Your task to perform on an android device: toggle improve location accuracy Image 0: 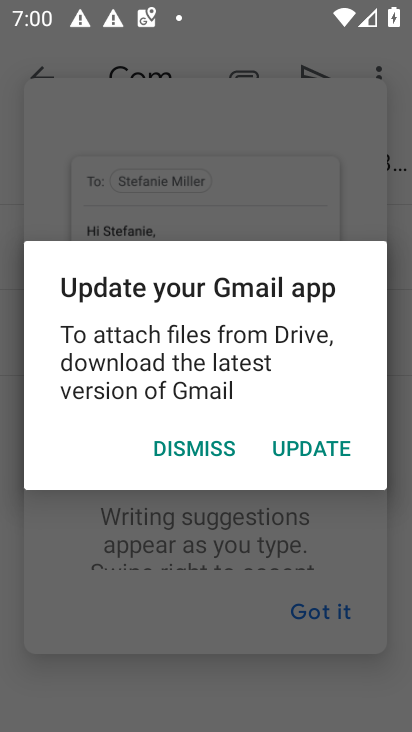
Step 0: press home button
Your task to perform on an android device: toggle improve location accuracy Image 1: 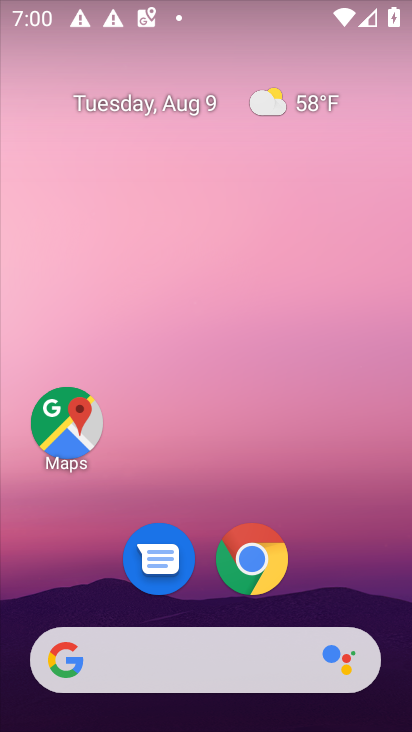
Step 1: drag from (191, 544) to (145, 0)
Your task to perform on an android device: toggle improve location accuracy Image 2: 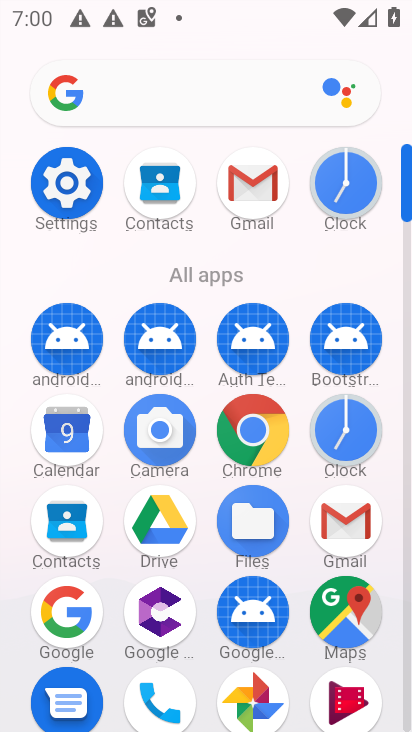
Step 2: click (66, 184)
Your task to perform on an android device: toggle improve location accuracy Image 3: 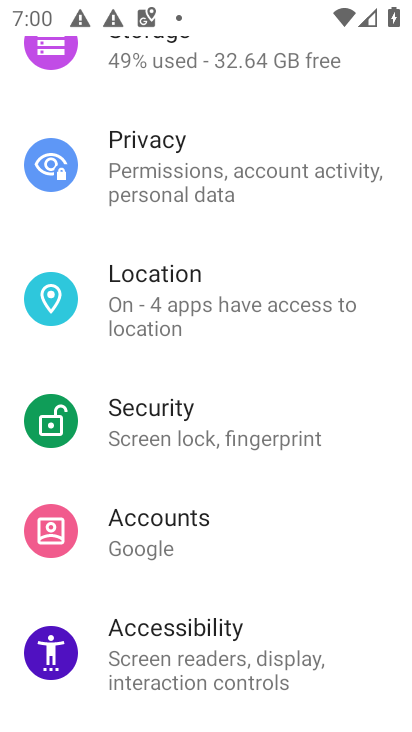
Step 3: click (163, 296)
Your task to perform on an android device: toggle improve location accuracy Image 4: 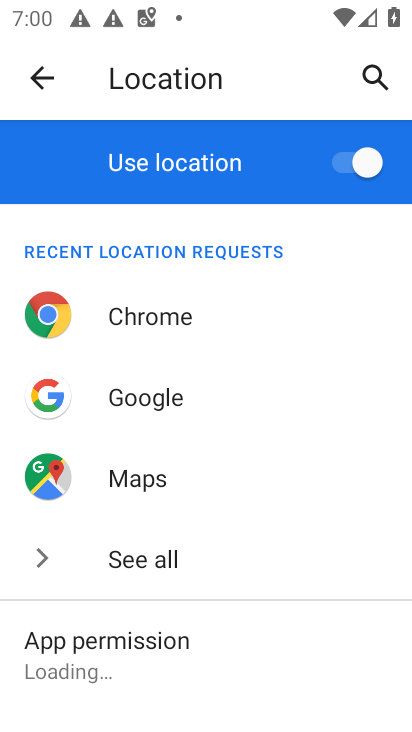
Step 4: drag from (248, 607) to (183, 302)
Your task to perform on an android device: toggle improve location accuracy Image 5: 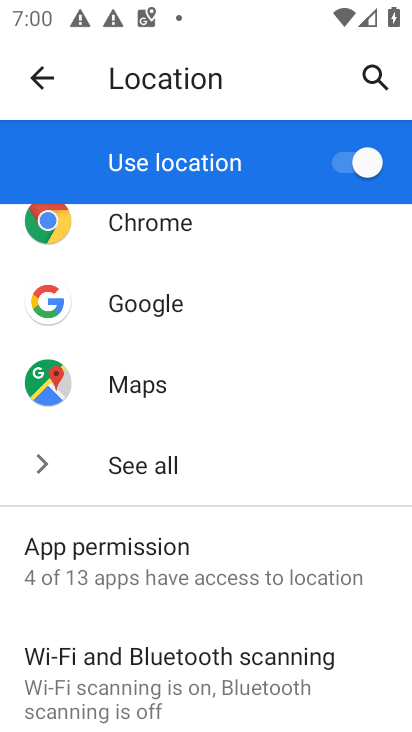
Step 5: drag from (231, 540) to (210, 288)
Your task to perform on an android device: toggle improve location accuracy Image 6: 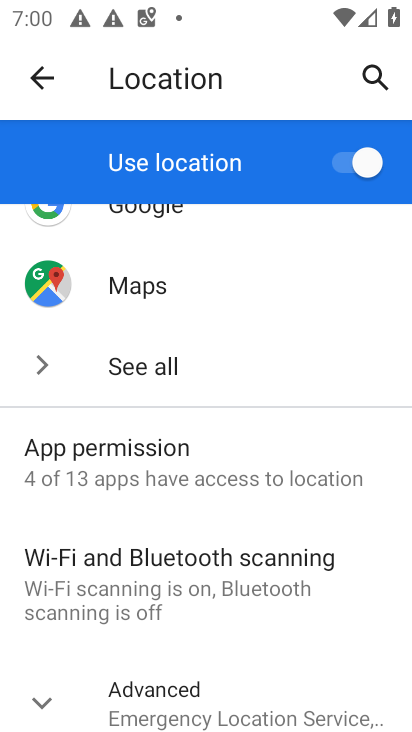
Step 6: drag from (220, 652) to (205, 263)
Your task to perform on an android device: toggle improve location accuracy Image 7: 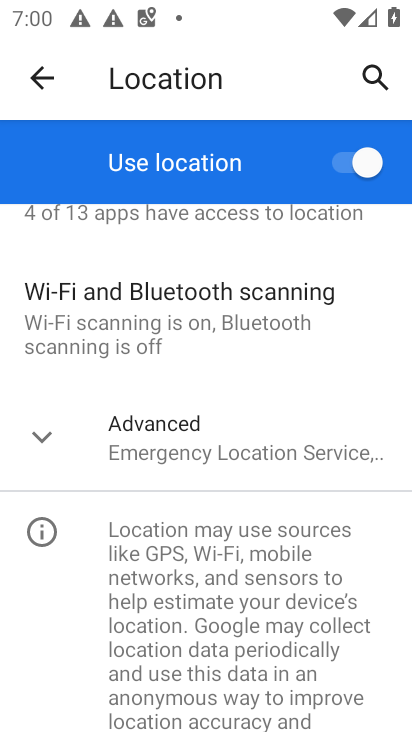
Step 7: click (132, 429)
Your task to perform on an android device: toggle improve location accuracy Image 8: 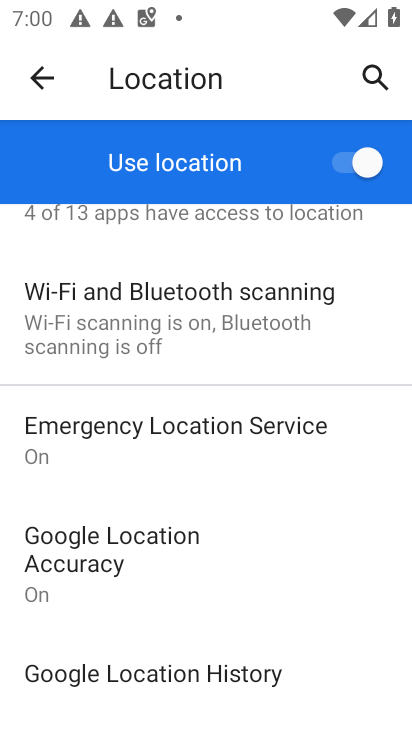
Step 8: click (143, 562)
Your task to perform on an android device: toggle improve location accuracy Image 9: 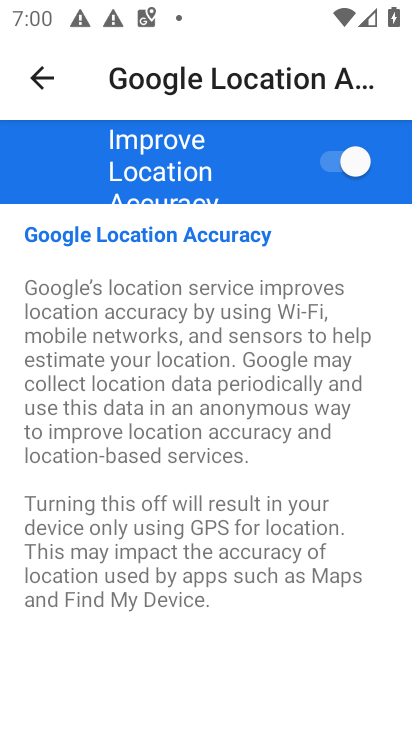
Step 9: click (312, 171)
Your task to perform on an android device: toggle improve location accuracy Image 10: 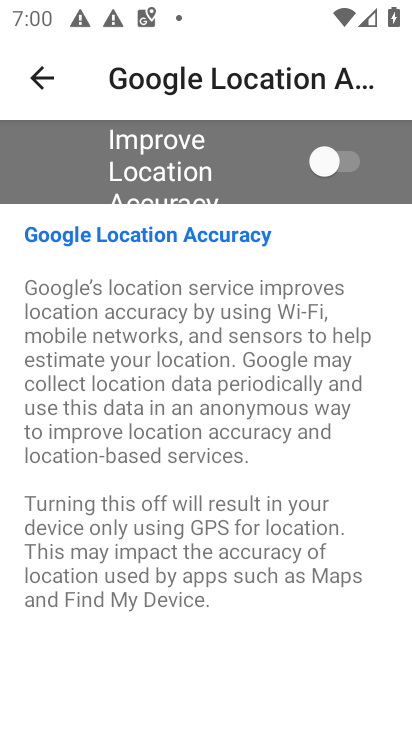
Step 10: task complete